Your task to perform on an android device: delete a single message in the gmail app Image 0: 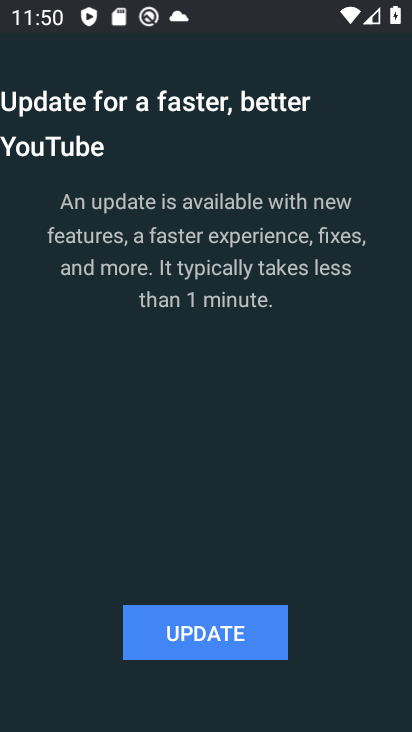
Step 0: press home button
Your task to perform on an android device: delete a single message in the gmail app Image 1: 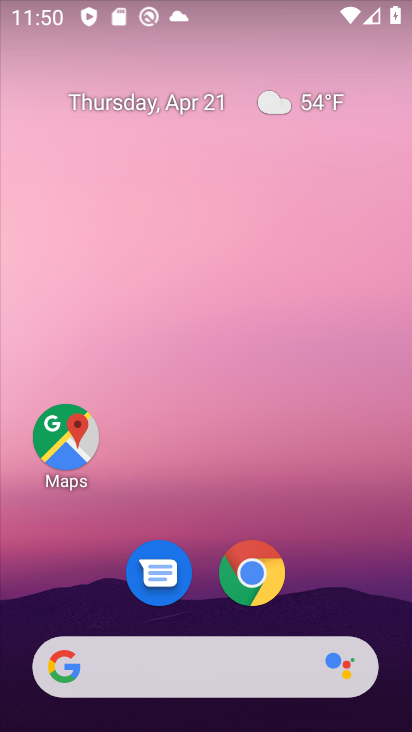
Step 1: drag from (384, 603) to (359, 112)
Your task to perform on an android device: delete a single message in the gmail app Image 2: 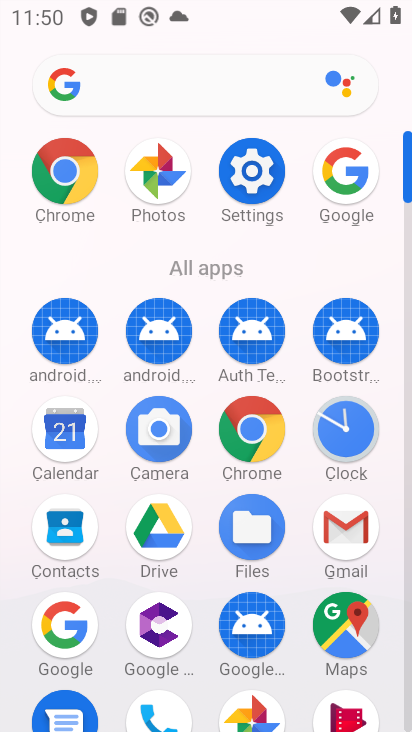
Step 2: click (350, 534)
Your task to perform on an android device: delete a single message in the gmail app Image 3: 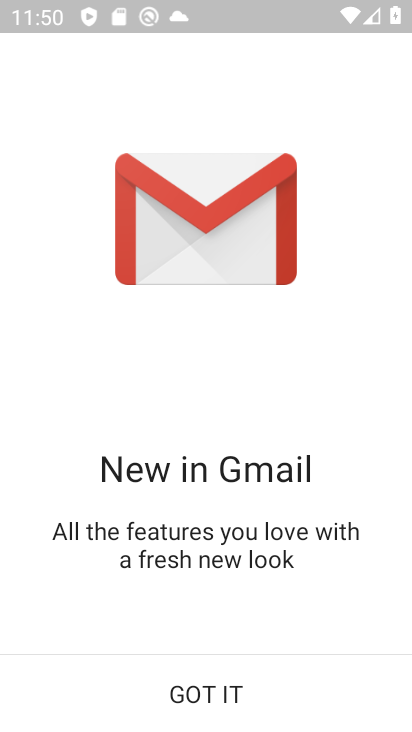
Step 3: click (211, 681)
Your task to perform on an android device: delete a single message in the gmail app Image 4: 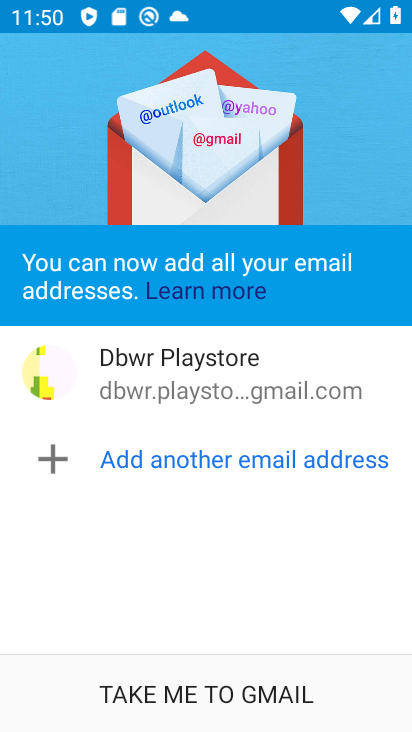
Step 4: click (211, 680)
Your task to perform on an android device: delete a single message in the gmail app Image 5: 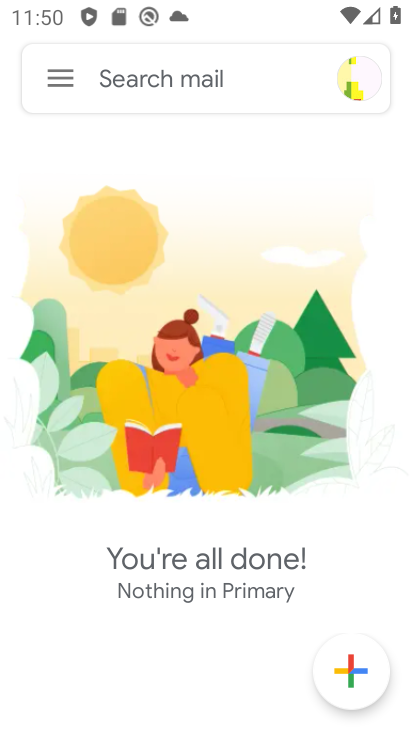
Step 5: click (59, 83)
Your task to perform on an android device: delete a single message in the gmail app Image 6: 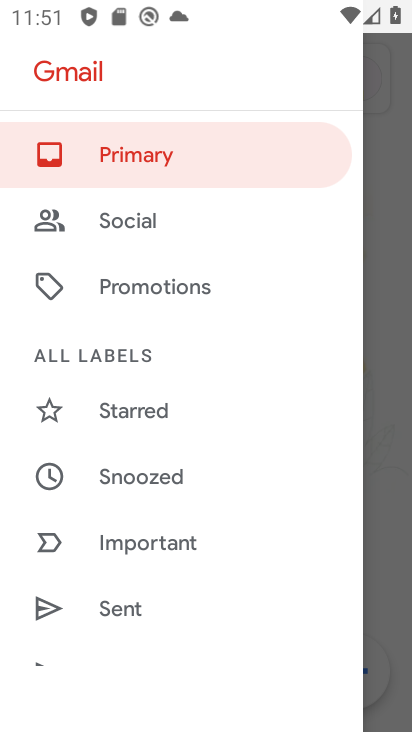
Step 6: drag from (200, 605) to (265, 212)
Your task to perform on an android device: delete a single message in the gmail app Image 7: 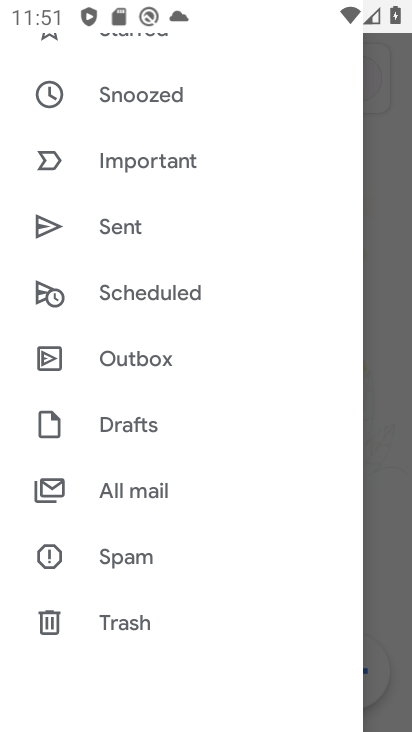
Step 7: drag from (159, 578) to (194, 285)
Your task to perform on an android device: delete a single message in the gmail app Image 8: 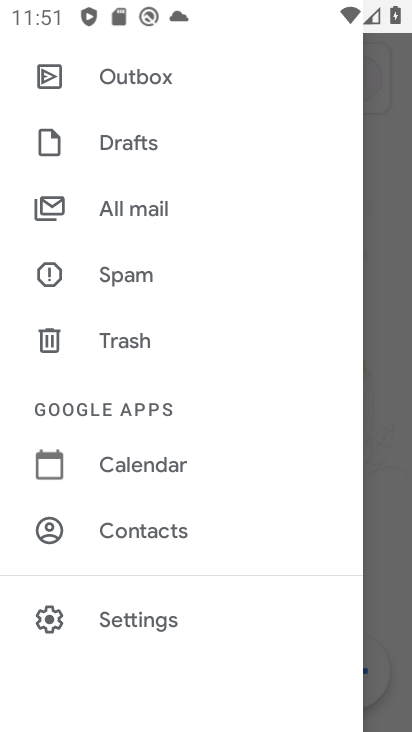
Step 8: click (158, 211)
Your task to perform on an android device: delete a single message in the gmail app Image 9: 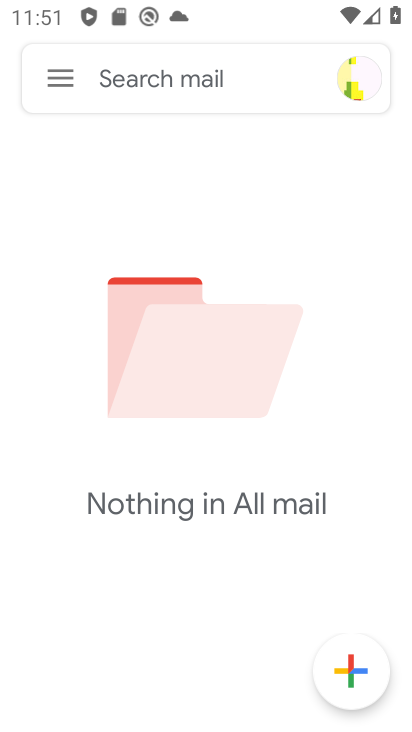
Step 9: task complete